Your task to perform on an android device: toggle improve location accuracy Image 0: 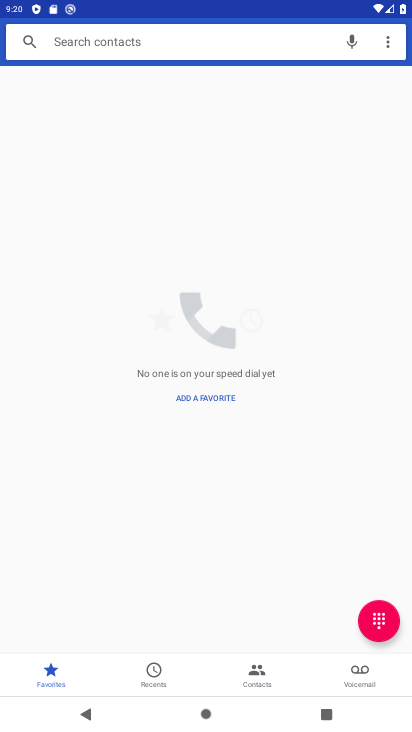
Step 0: press home button
Your task to perform on an android device: toggle improve location accuracy Image 1: 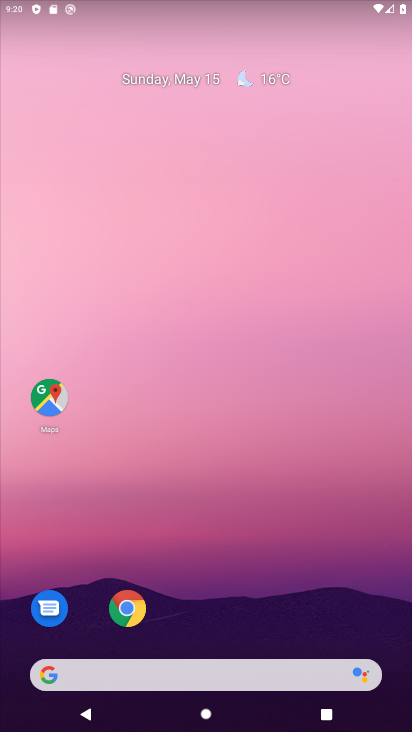
Step 1: drag from (198, 646) to (140, 70)
Your task to perform on an android device: toggle improve location accuracy Image 2: 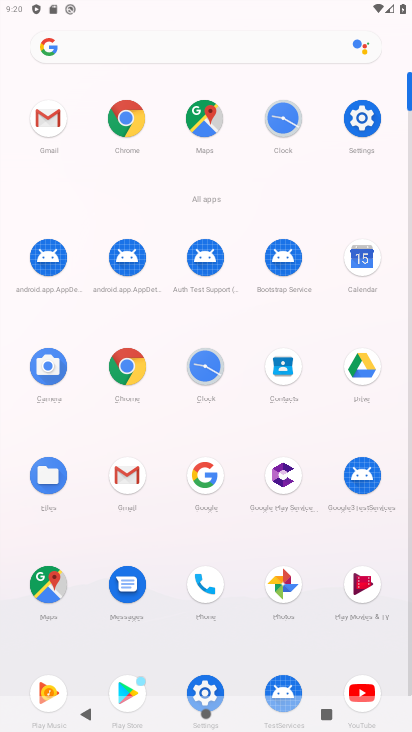
Step 2: click (369, 124)
Your task to perform on an android device: toggle improve location accuracy Image 3: 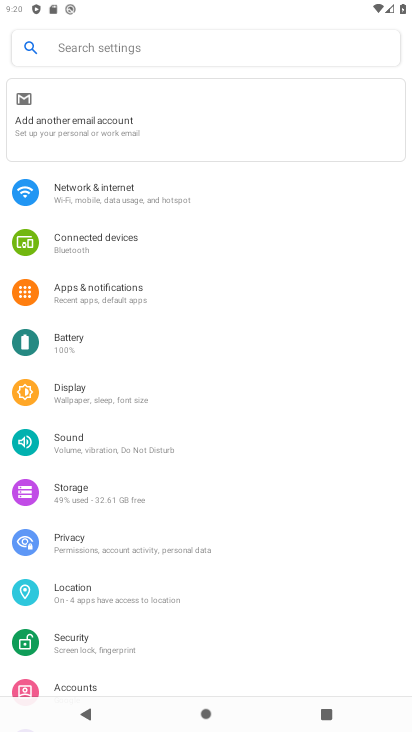
Step 3: click (66, 596)
Your task to perform on an android device: toggle improve location accuracy Image 4: 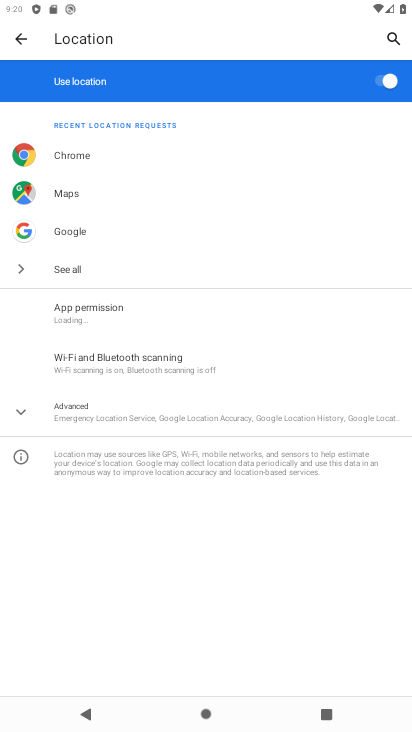
Step 4: click (65, 405)
Your task to perform on an android device: toggle improve location accuracy Image 5: 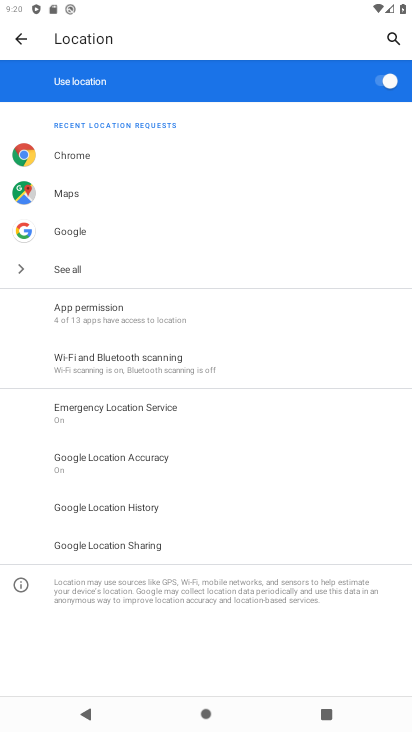
Step 5: click (78, 452)
Your task to perform on an android device: toggle improve location accuracy Image 6: 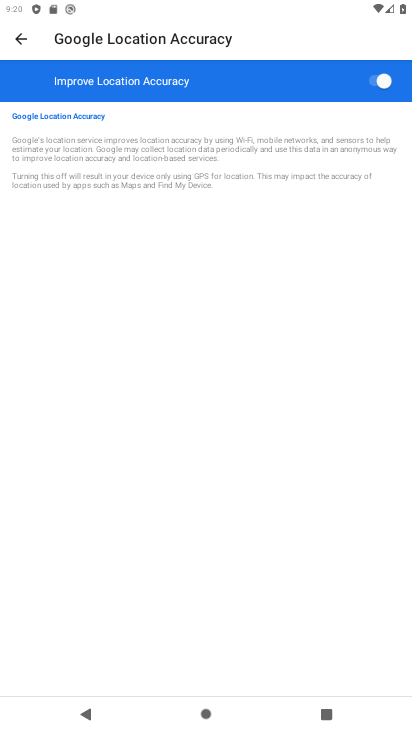
Step 6: click (382, 77)
Your task to perform on an android device: toggle improve location accuracy Image 7: 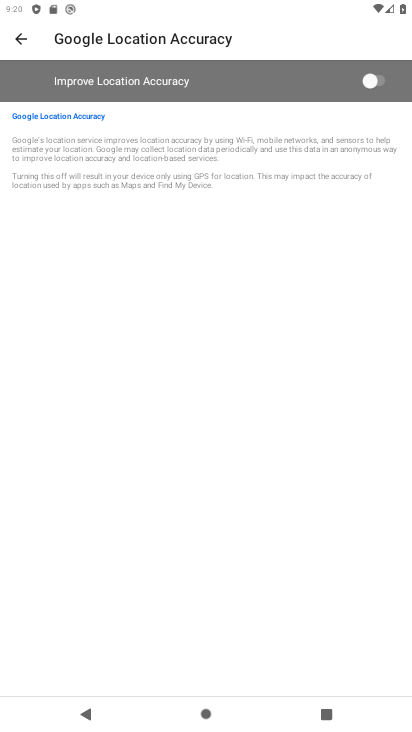
Step 7: task complete